Your task to perform on an android device: open chrome privacy settings Image 0: 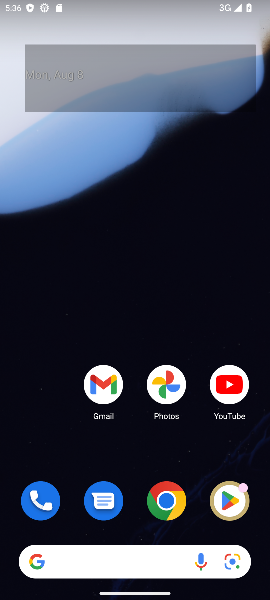
Step 0: click (176, 509)
Your task to perform on an android device: open chrome privacy settings Image 1: 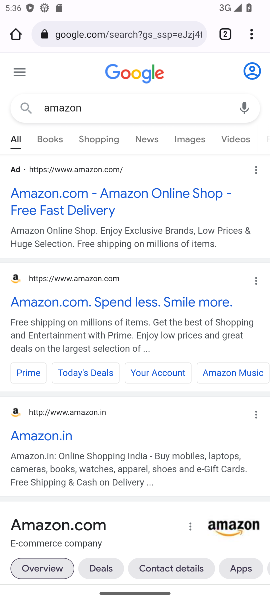
Step 1: click (253, 35)
Your task to perform on an android device: open chrome privacy settings Image 2: 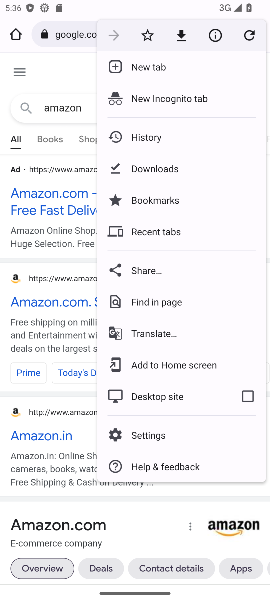
Step 2: click (152, 431)
Your task to perform on an android device: open chrome privacy settings Image 3: 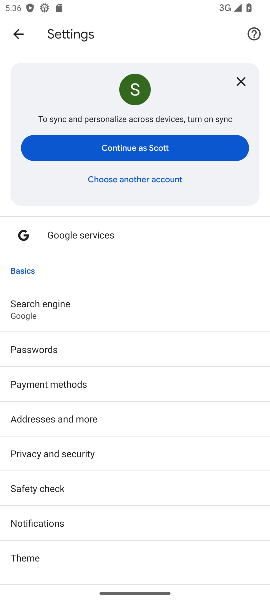
Step 3: click (48, 444)
Your task to perform on an android device: open chrome privacy settings Image 4: 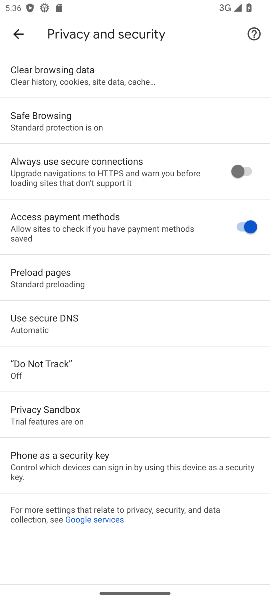
Step 4: task complete